Your task to perform on an android device: set default search engine in the chrome app Image 0: 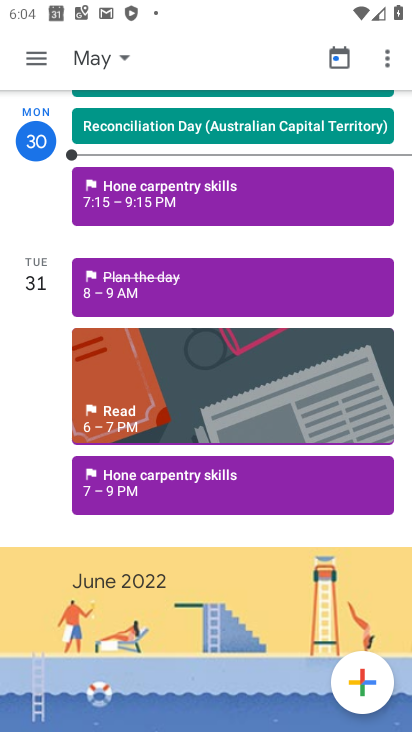
Step 0: press home button
Your task to perform on an android device: set default search engine in the chrome app Image 1: 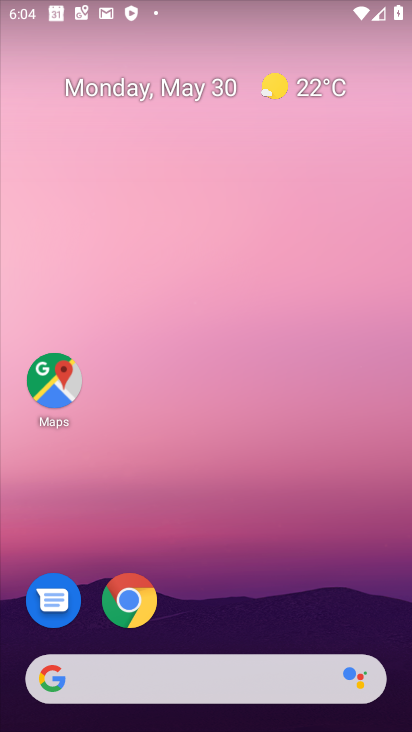
Step 1: click (125, 607)
Your task to perform on an android device: set default search engine in the chrome app Image 2: 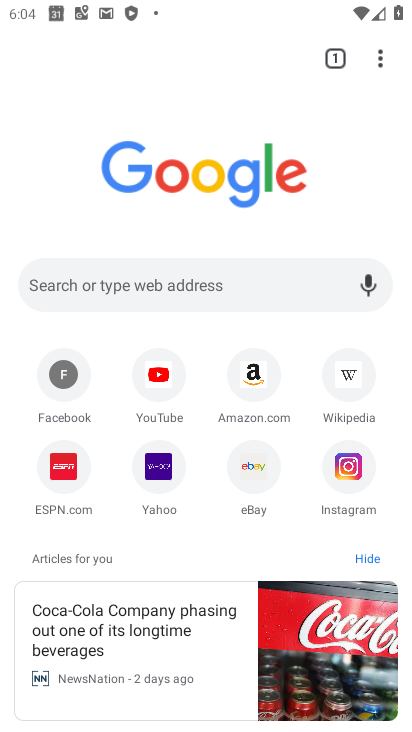
Step 2: drag from (381, 62) to (152, 491)
Your task to perform on an android device: set default search engine in the chrome app Image 3: 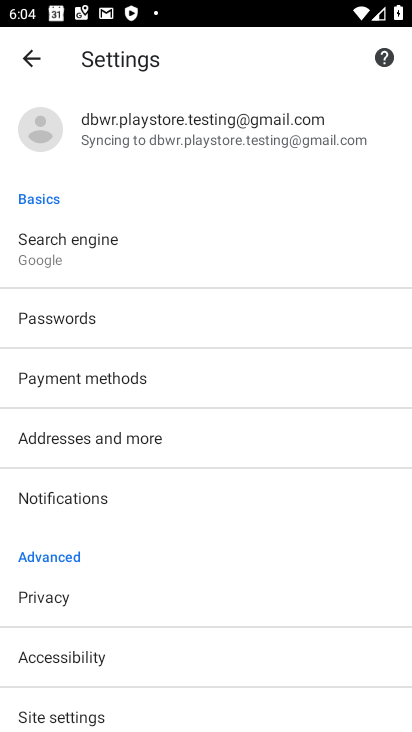
Step 3: click (64, 242)
Your task to perform on an android device: set default search engine in the chrome app Image 4: 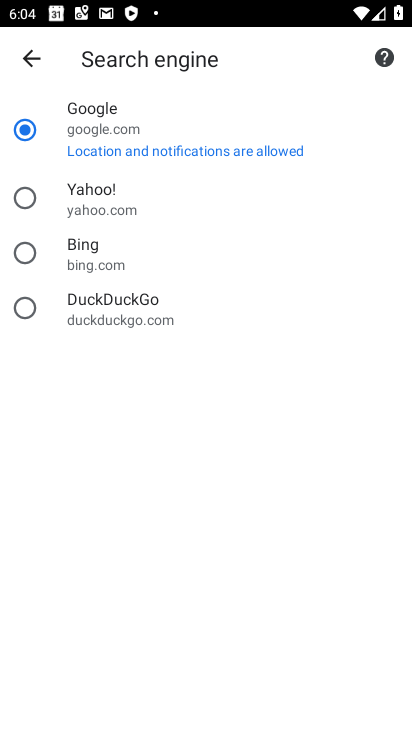
Step 4: click (20, 198)
Your task to perform on an android device: set default search engine in the chrome app Image 5: 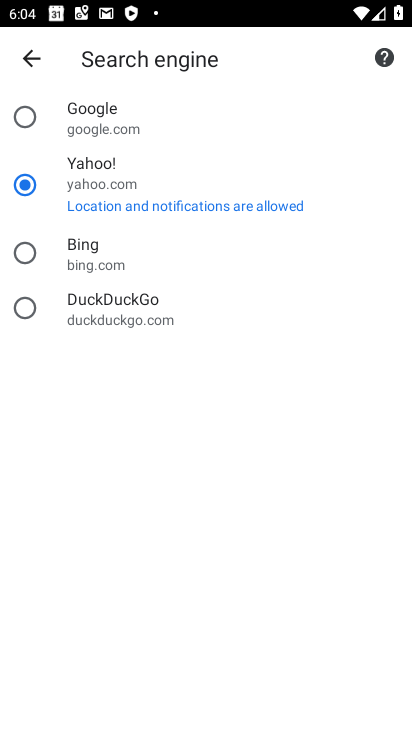
Step 5: task complete